Your task to perform on an android device: change notification settings in the gmail app Image 0: 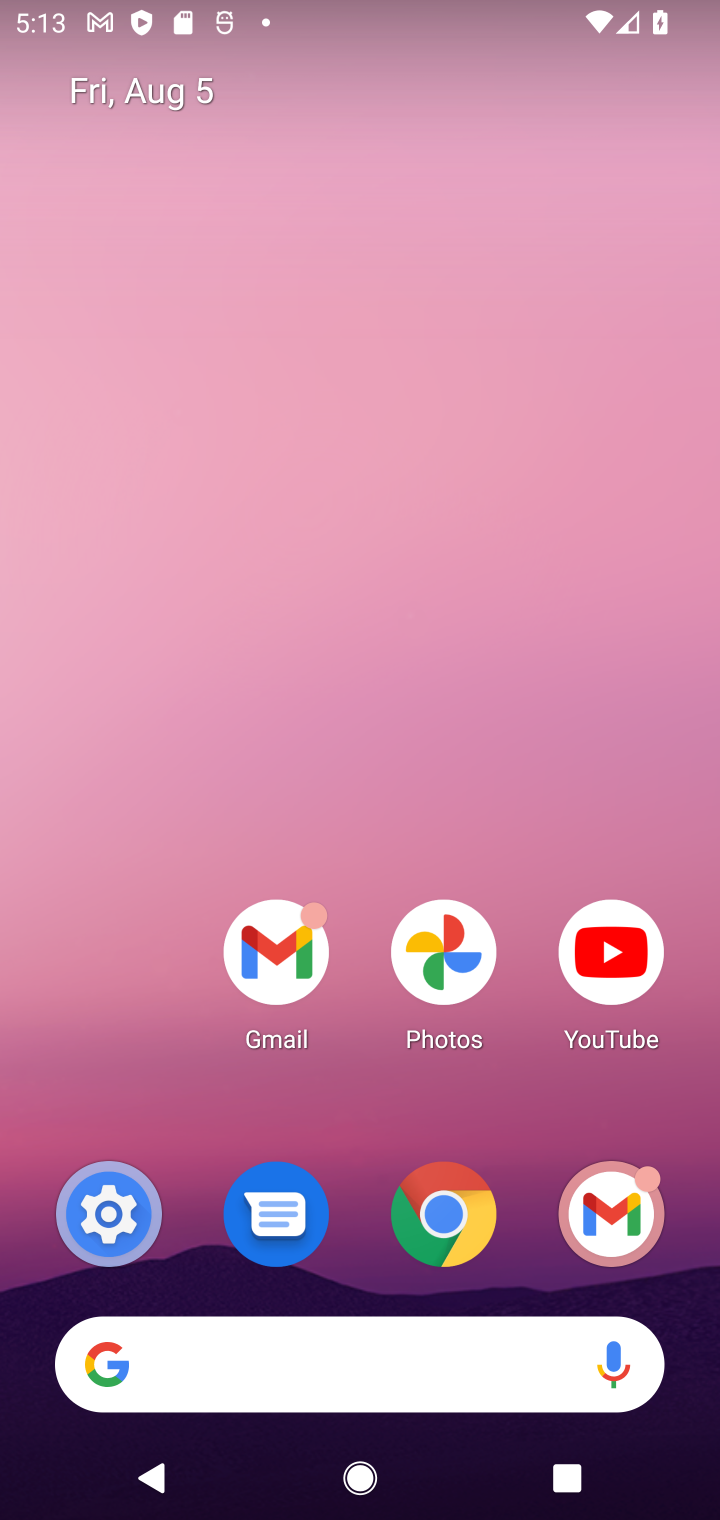
Step 0: click (282, 955)
Your task to perform on an android device: change notification settings in the gmail app Image 1: 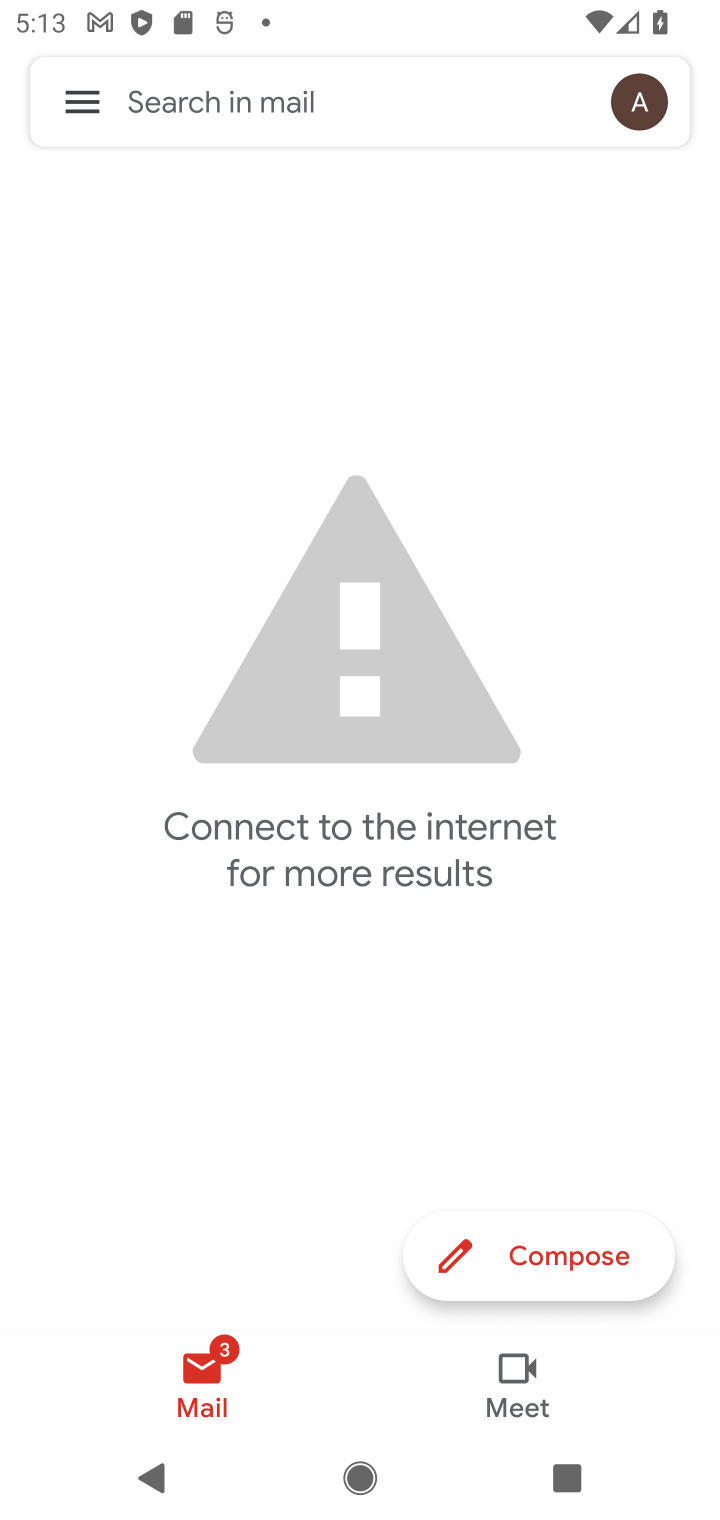
Step 1: click (91, 106)
Your task to perform on an android device: change notification settings in the gmail app Image 2: 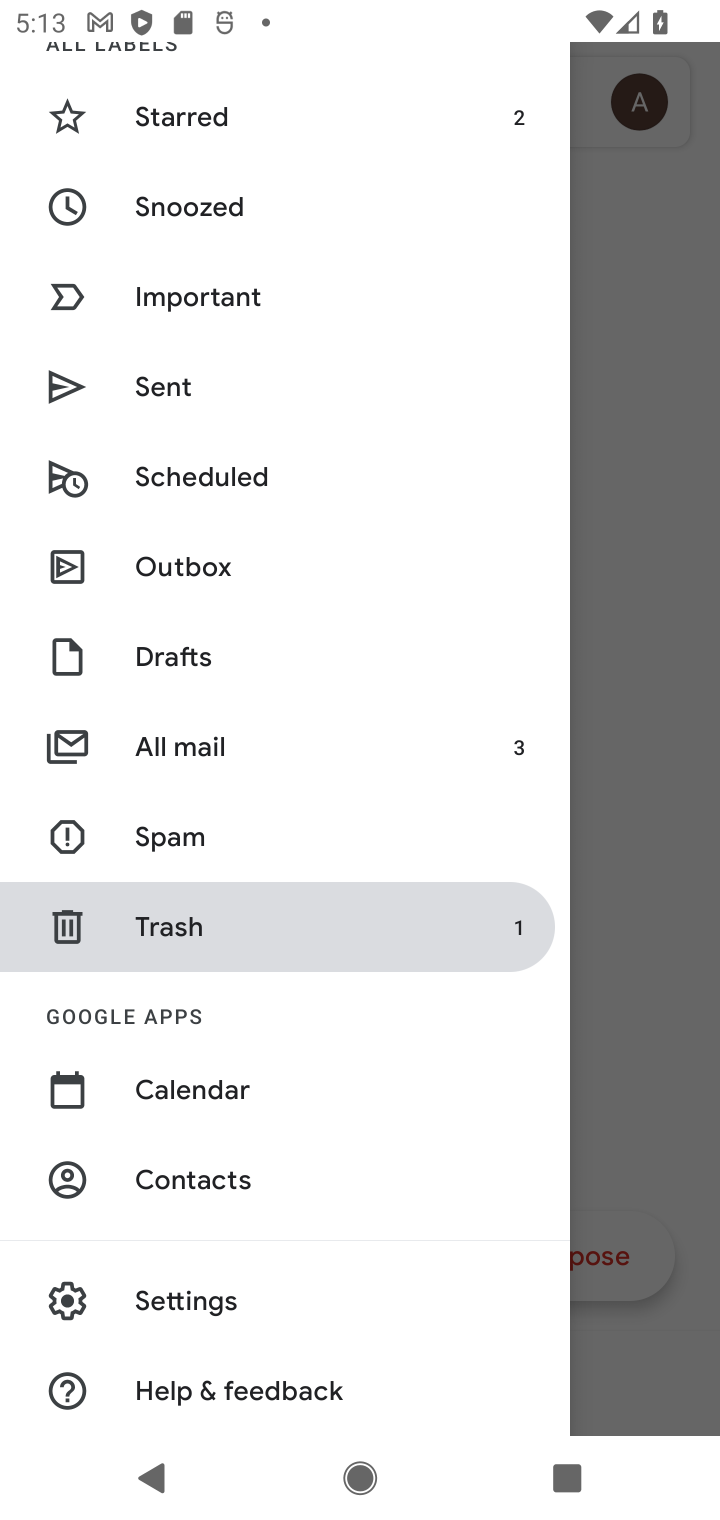
Step 2: click (212, 1298)
Your task to perform on an android device: change notification settings in the gmail app Image 3: 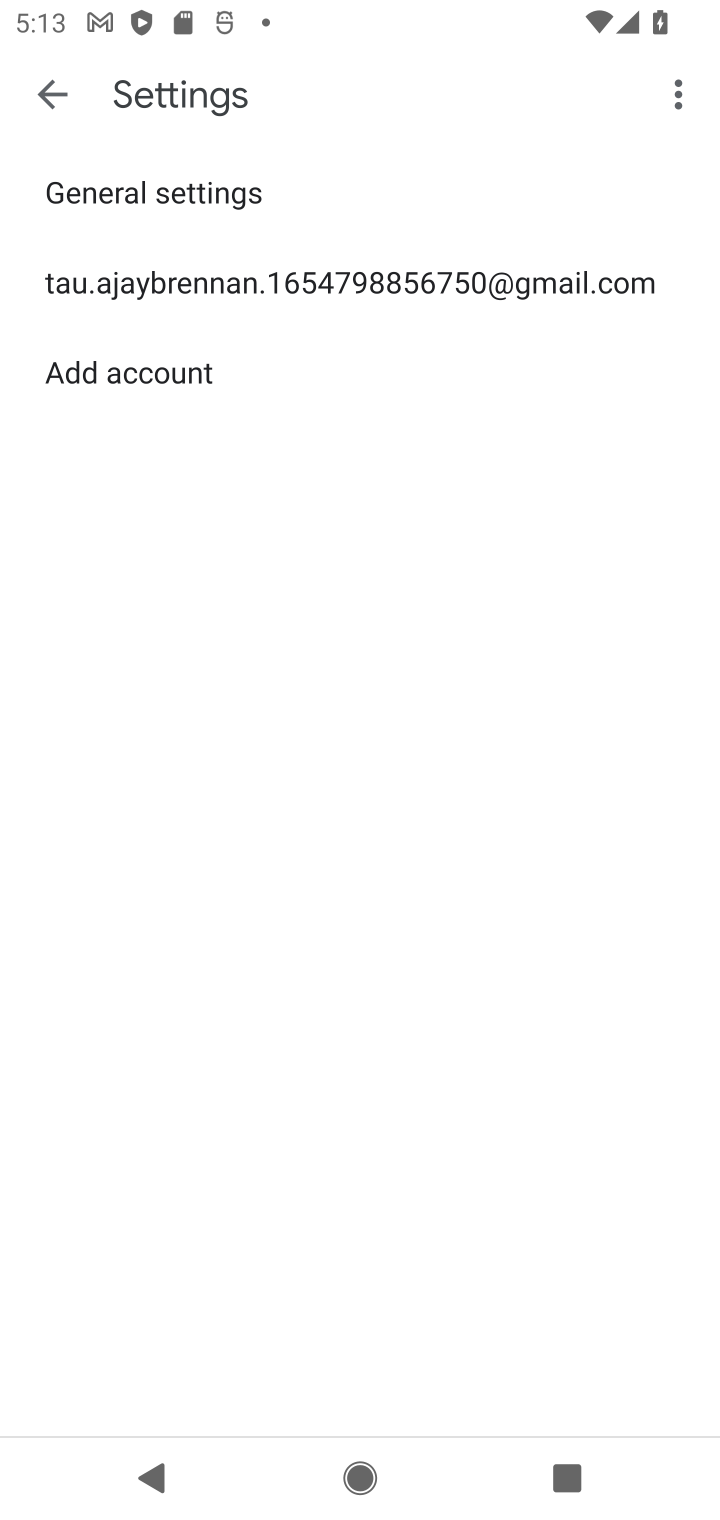
Step 3: click (395, 284)
Your task to perform on an android device: change notification settings in the gmail app Image 4: 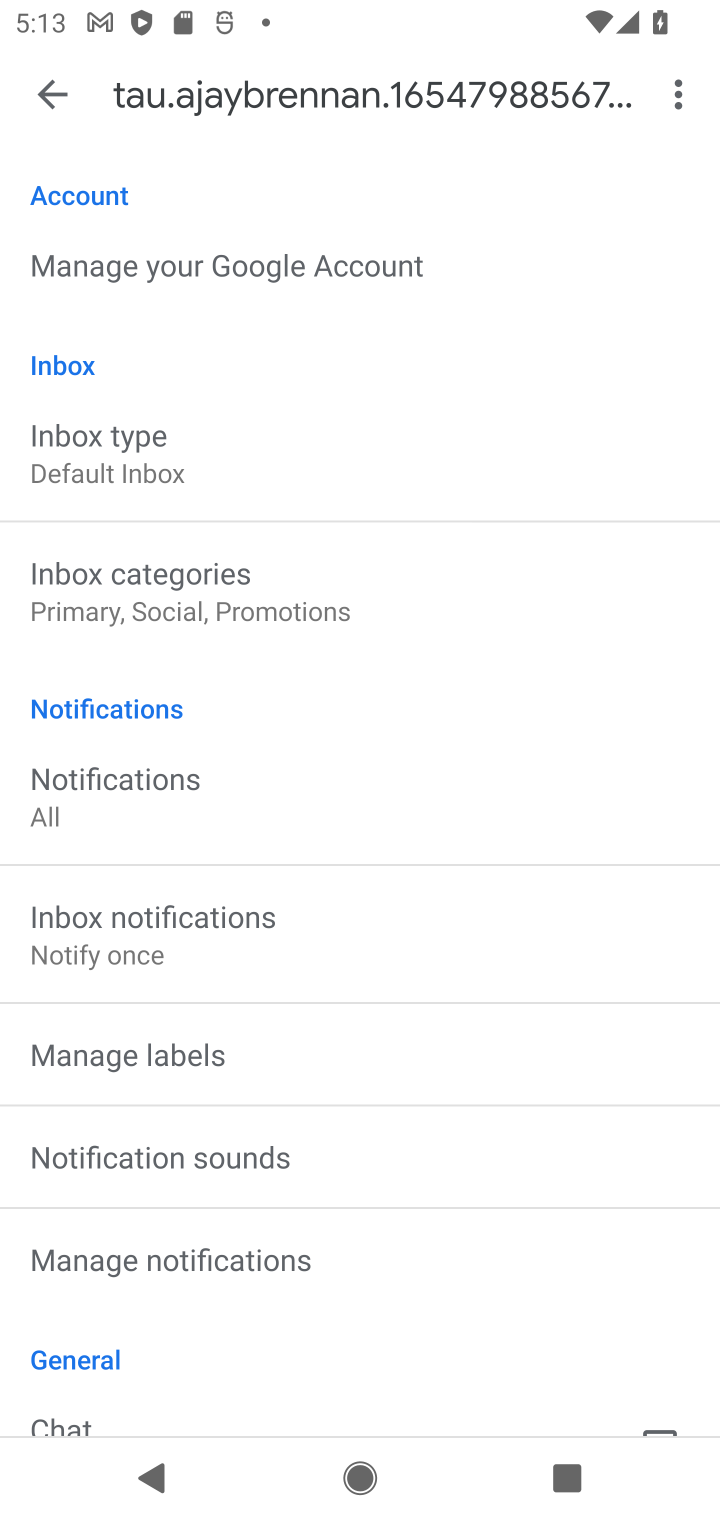
Step 4: click (248, 1268)
Your task to perform on an android device: change notification settings in the gmail app Image 5: 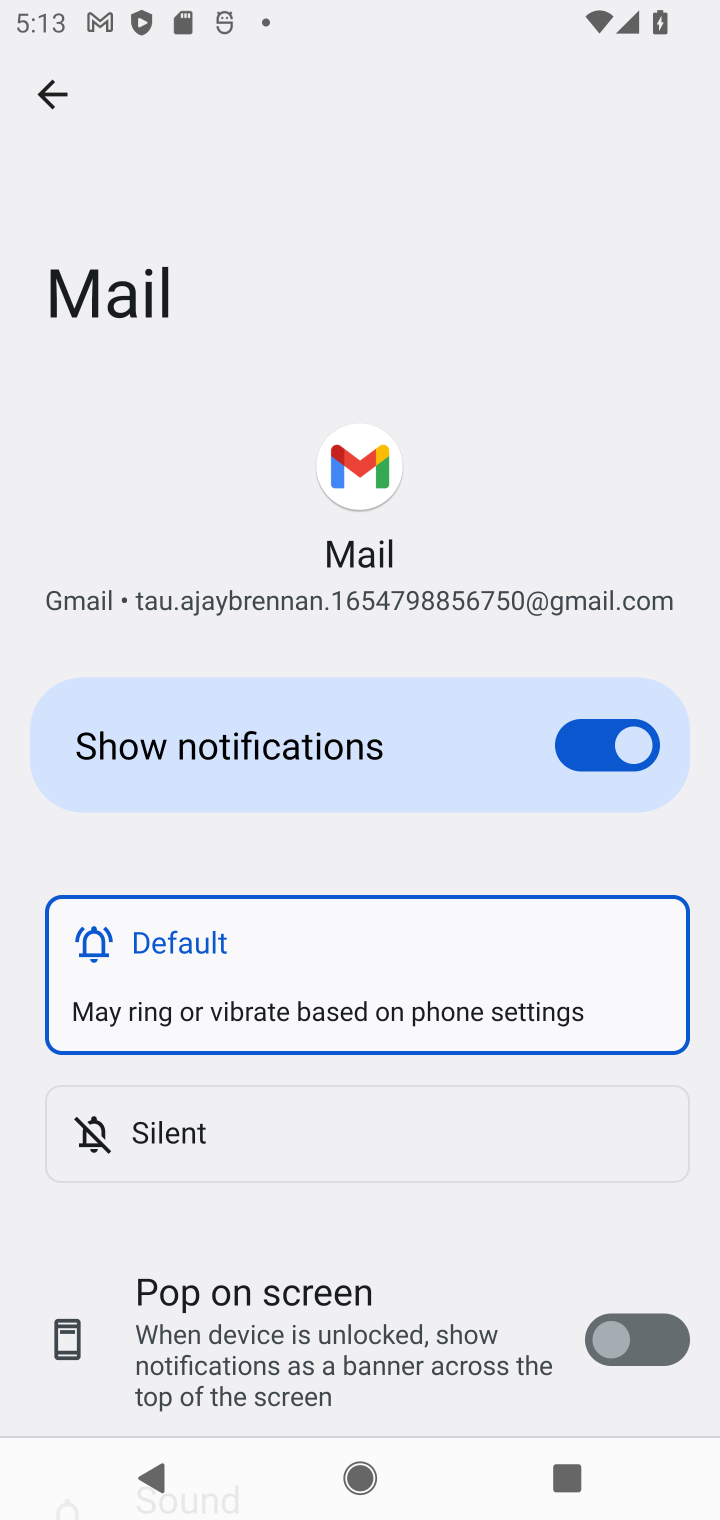
Step 5: click (623, 738)
Your task to perform on an android device: change notification settings in the gmail app Image 6: 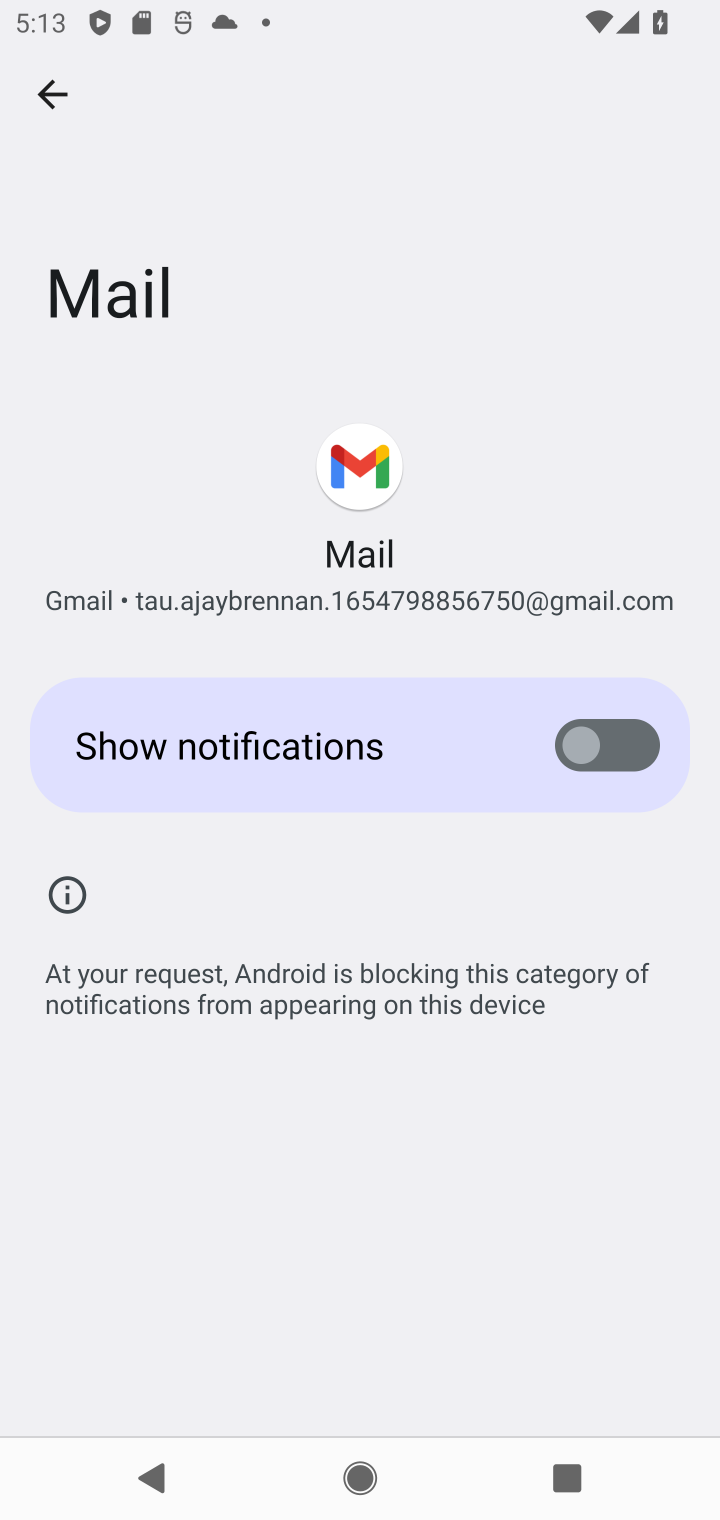
Step 6: task complete